Your task to perform on an android device: Go to wifi settings Image 0: 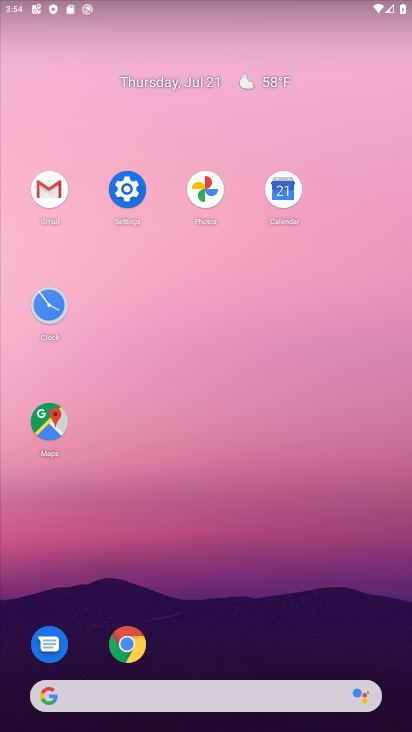
Step 0: click (129, 178)
Your task to perform on an android device: Go to wifi settings Image 1: 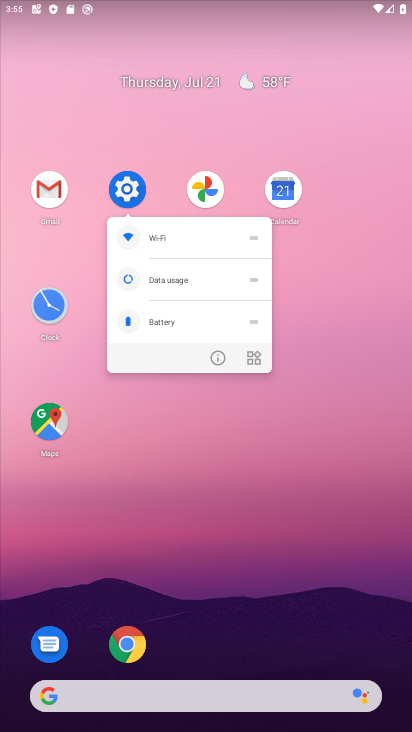
Step 1: click (132, 178)
Your task to perform on an android device: Go to wifi settings Image 2: 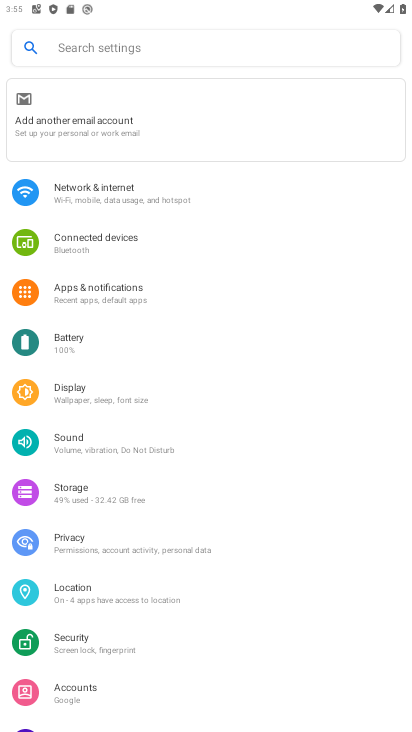
Step 2: click (168, 194)
Your task to perform on an android device: Go to wifi settings Image 3: 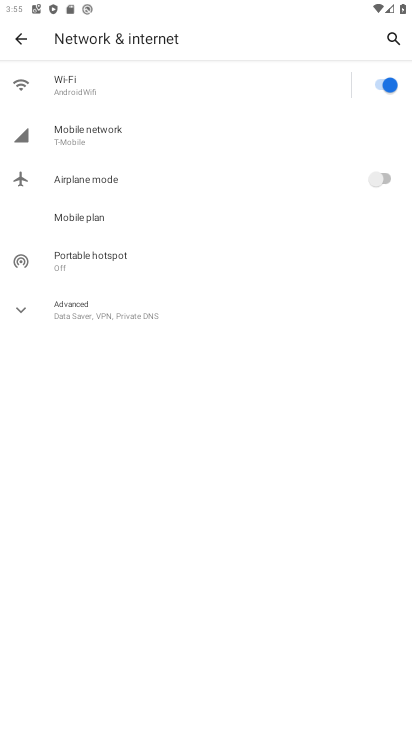
Step 3: click (107, 70)
Your task to perform on an android device: Go to wifi settings Image 4: 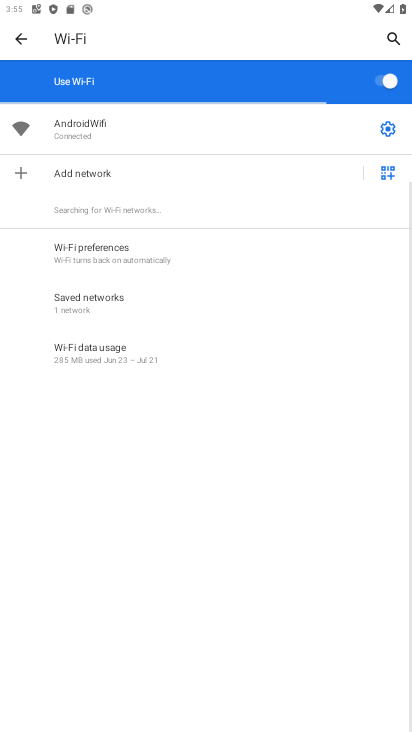
Step 4: click (387, 117)
Your task to perform on an android device: Go to wifi settings Image 5: 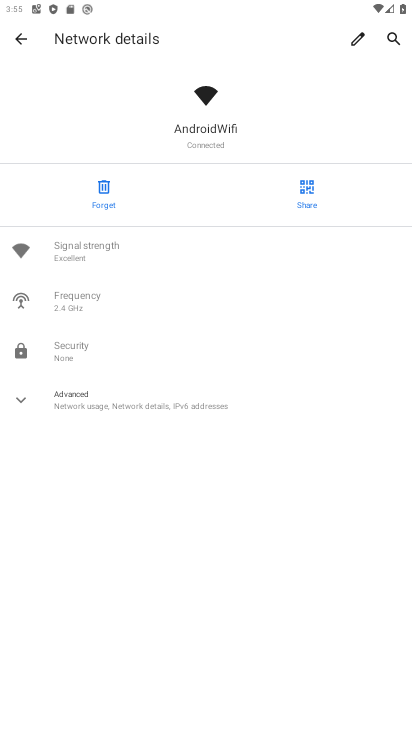
Step 5: task complete